Your task to perform on an android device: turn on the 24-hour format for clock Image 0: 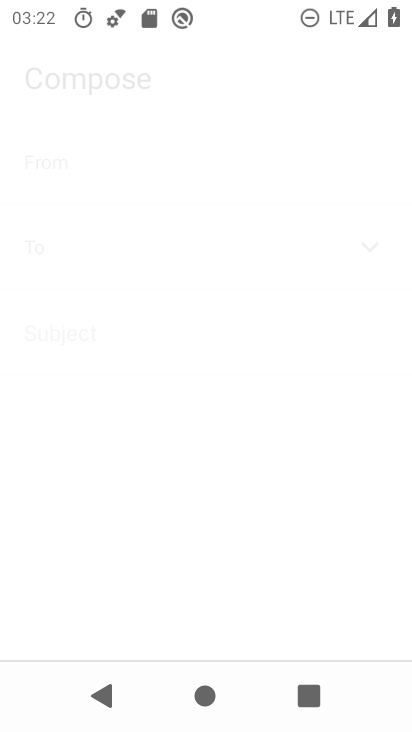
Step 0: click (254, 485)
Your task to perform on an android device: turn on the 24-hour format for clock Image 1: 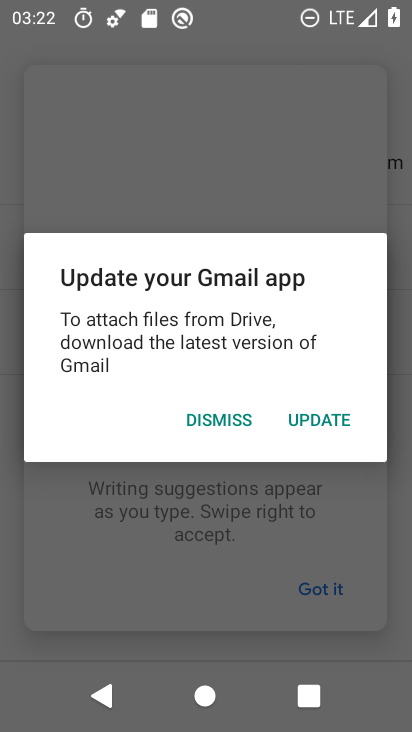
Step 1: press home button
Your task to perform on an android device: turn on the 24-hour format for clock Image 2: 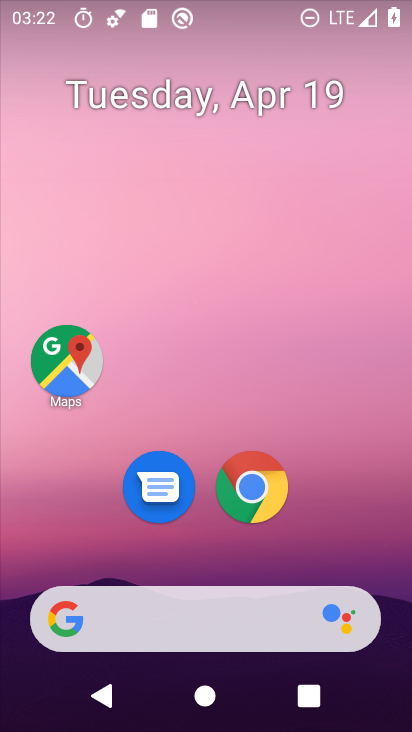
Step 2: drag from (173, 542) to (300, 20)
Your task to perform on an android device: turn on the 24-hour format for clock Image 3: 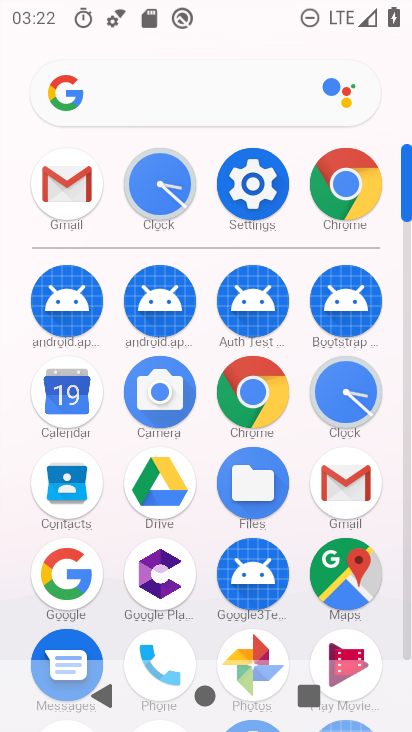
Step 3: click (345, 401)
Your task to perform on an android device: turn on the 24-hour format for clock Image 4: 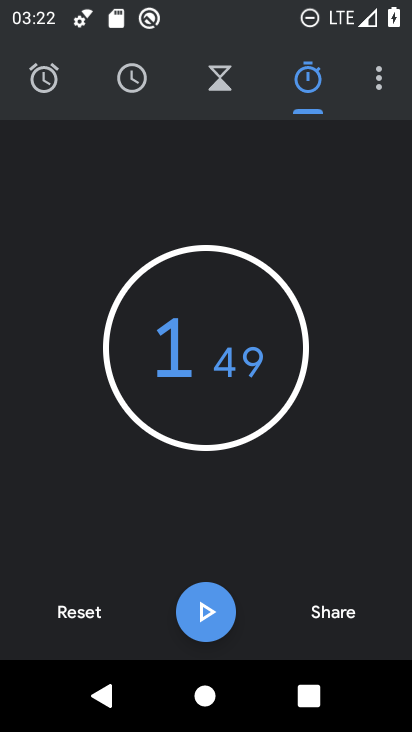
Step 4: click (371, 74)
Your task to perform on an android device: turn on the 24-hour format for clock Image 5: 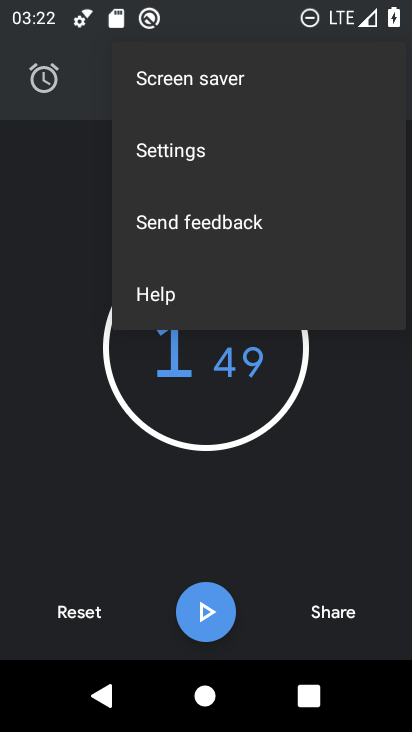
Step 5: click (215, 149)
Your task to perform on an android device: turn on the 24-hour format for clock Image 6: 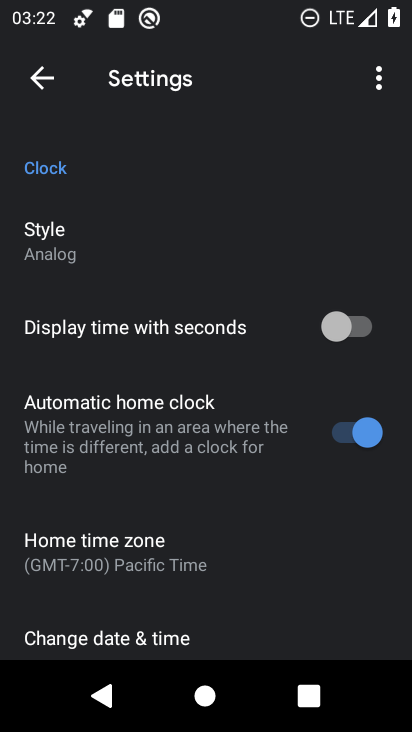
Step 6: click (97, 630)
Your task to perform on an android device: turn on the 24-hour format for clock Image 7: 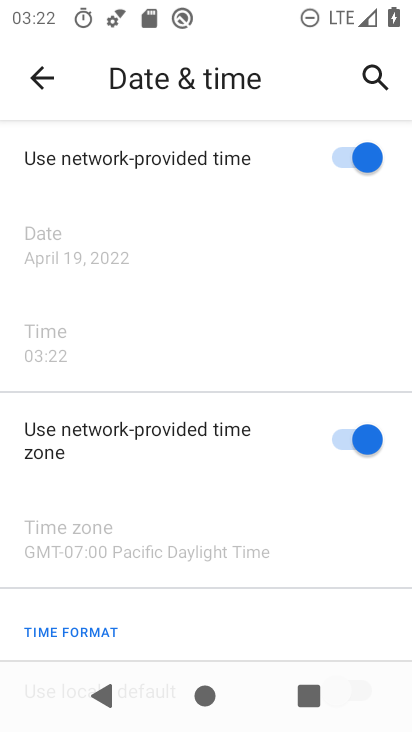
Step 7: task complete